Your task to perform on an android device: Search for panasonic triple a on bestbuy, select the first entry, and add it to the cart. Image 0: 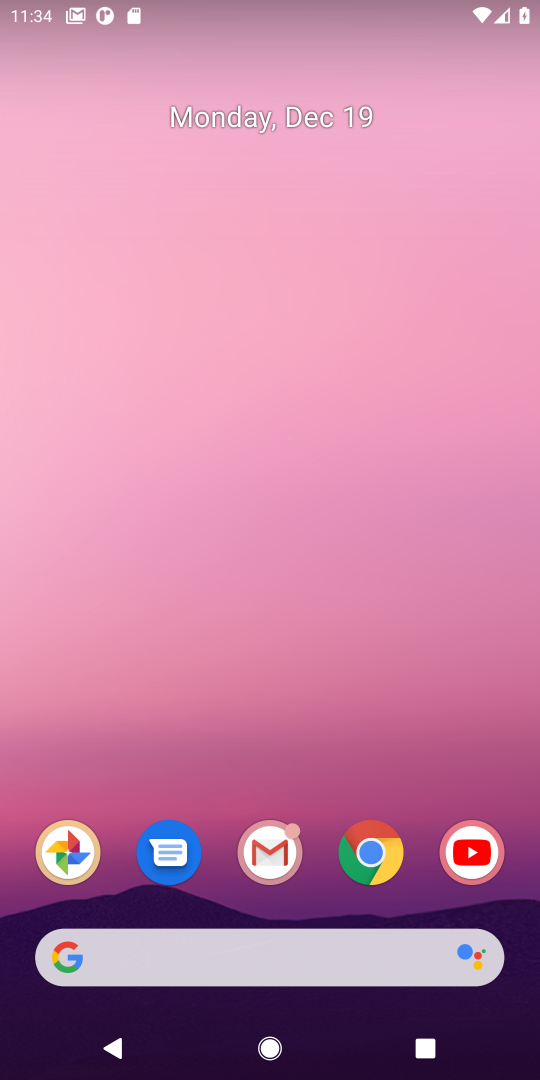
Step 0: click (372, 859)
Your task to perform on an android device: Search for panasonic triple a on bestbuy, select the first entry, and add it to the cart. Image 1: 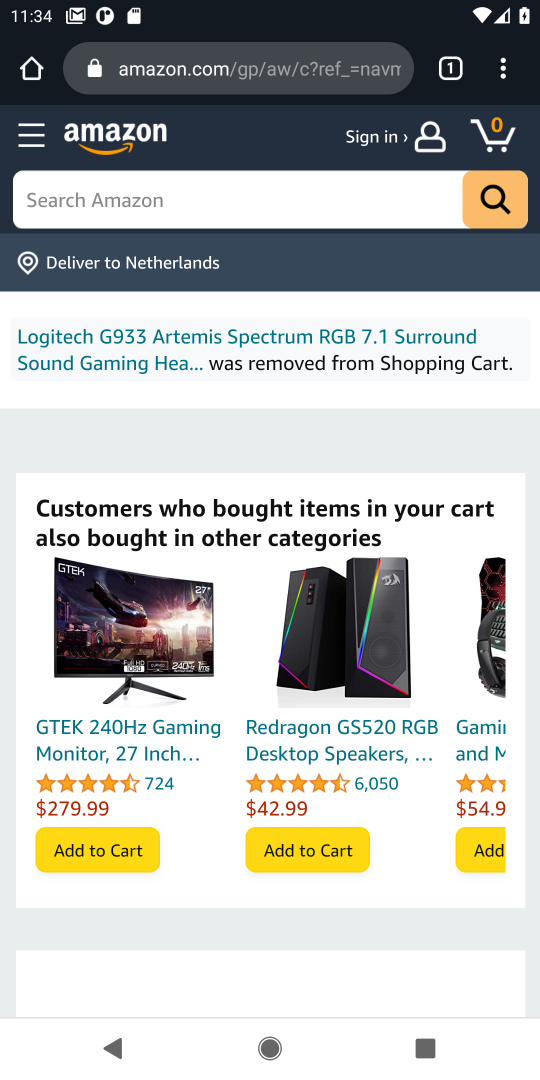
Step 1: click (232, 76)
Your task to perform on an android device: Search for panasonic triple a on bestbuy, select the first entry, and add it to the cart. Image 2: 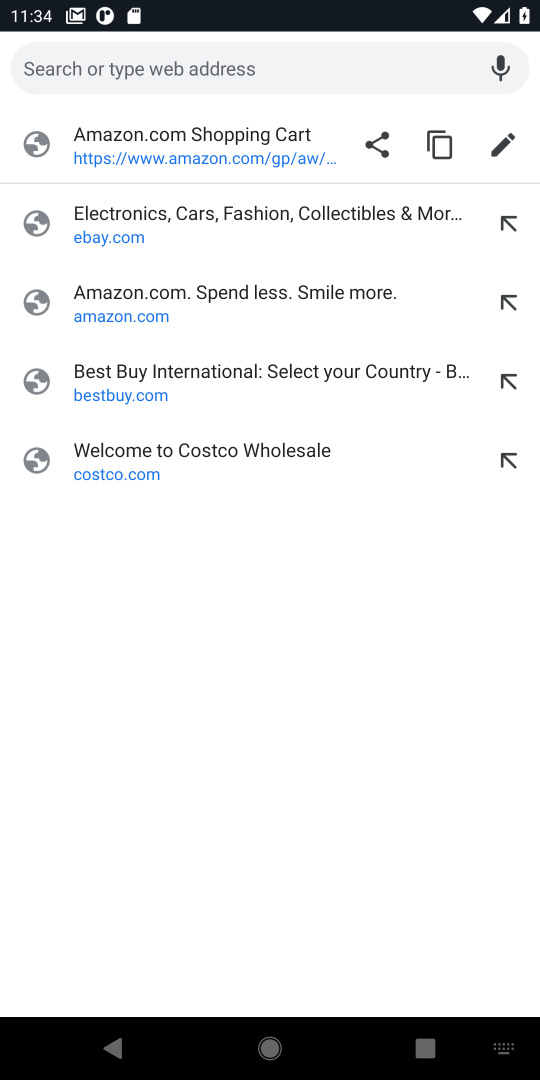
Step 2: click (134, 385)
Your task to perform on an android device: Search for panasonic triple a on bestbuy, select the first entry, and add it to the cart. Image 3: 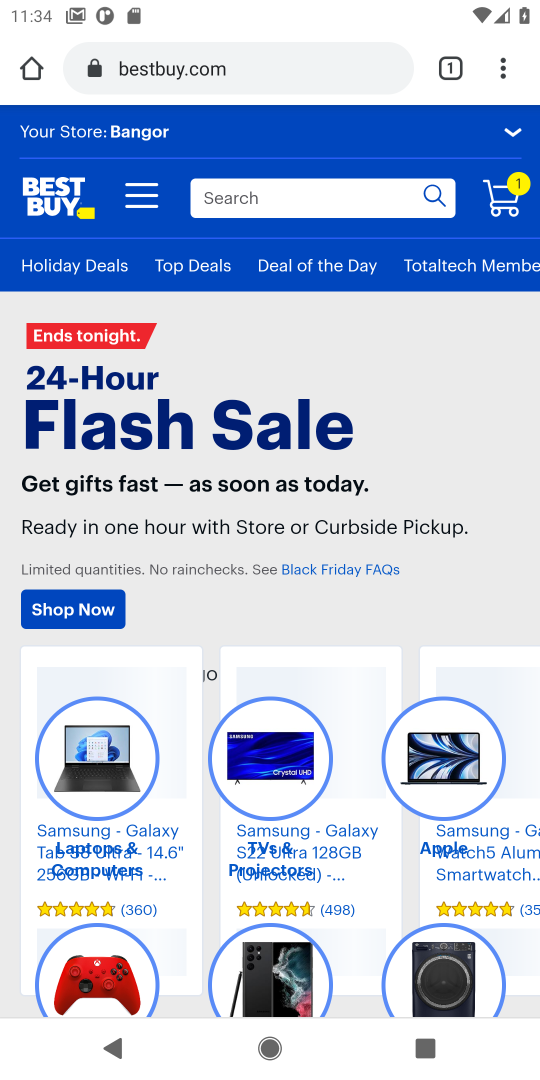
Step 3: click (267, 197)
Your task to perform on an android device: Search for panasonic triple a on bestbuy, select the first entry, and add it to the cart. Image 4: 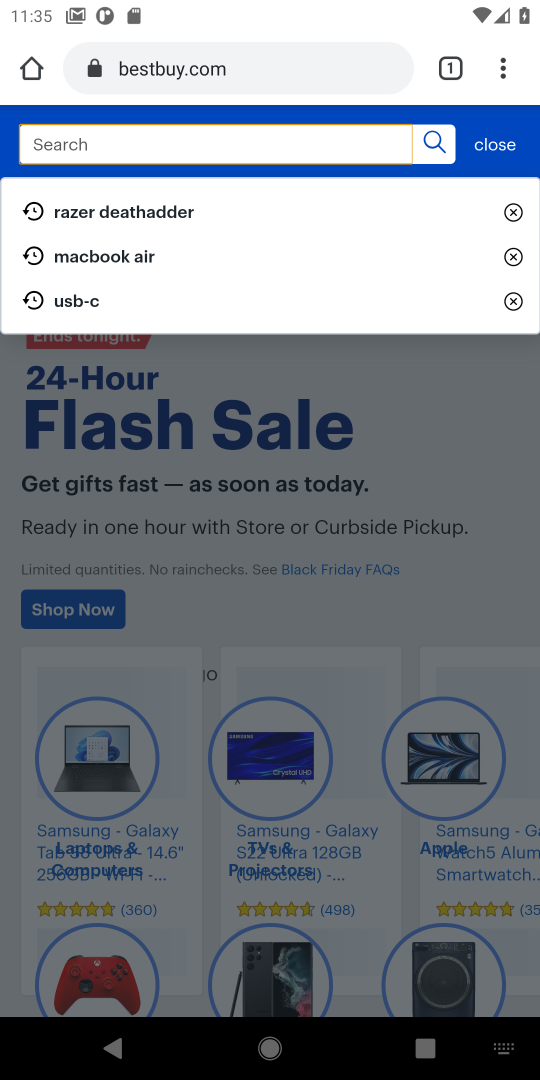
Step 4: type "panasonic triple a "
Your task to perform on an android device: Search for panasonic triple a on bestbuy, select the first entry, and add it to the cart. Image 5: 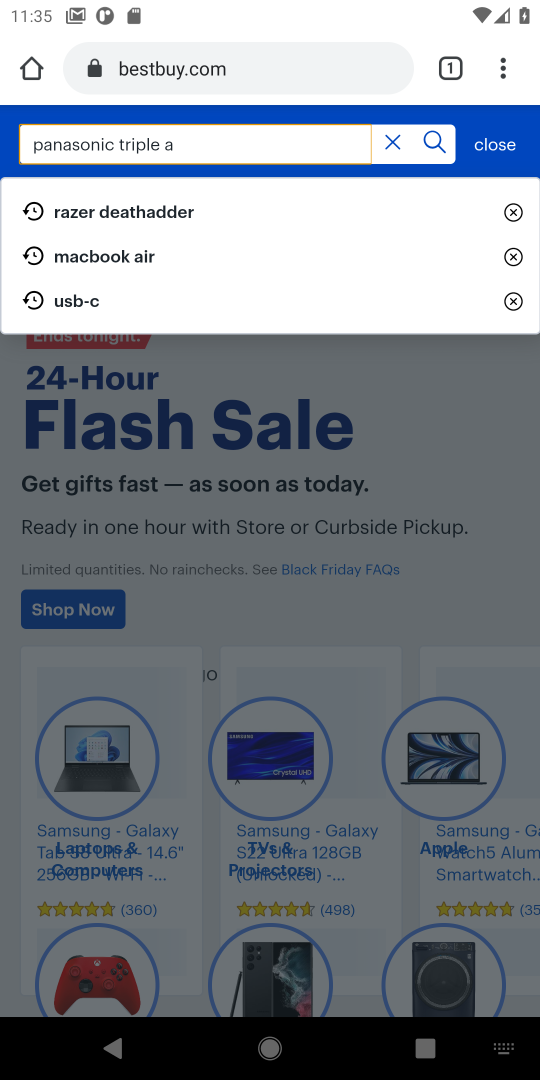
Step 5: click (427, 145)
Your task to perform on an android device: Search for panasonic triple a on bestbuy, select the first entry, and add it to the cart. Image 6: 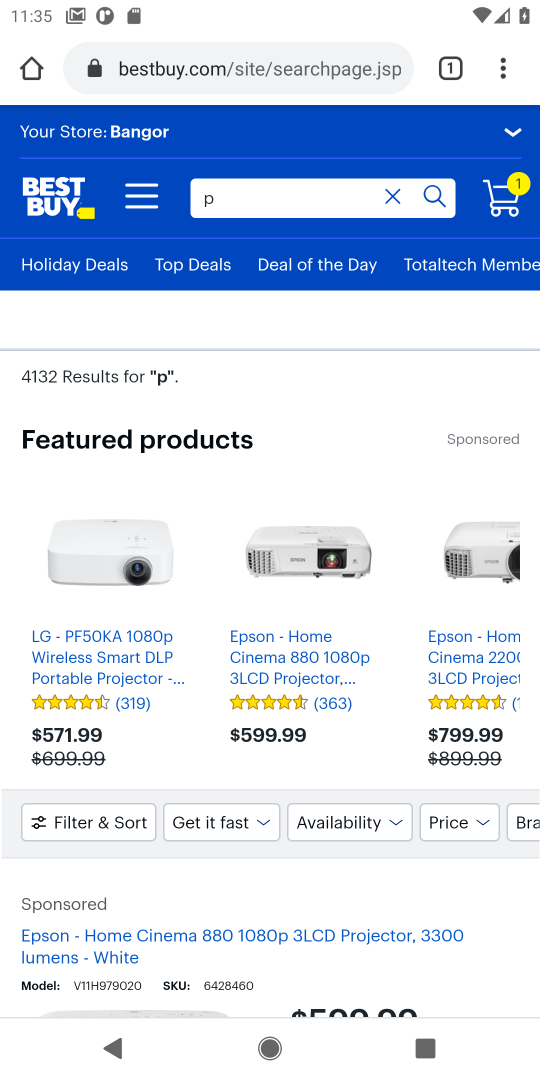
Step 6: click (269, 194)
Your task to perform on an android device: Search for panasonic triple a on bestbuy, select the first entry, and add it to the cart. Image 7: 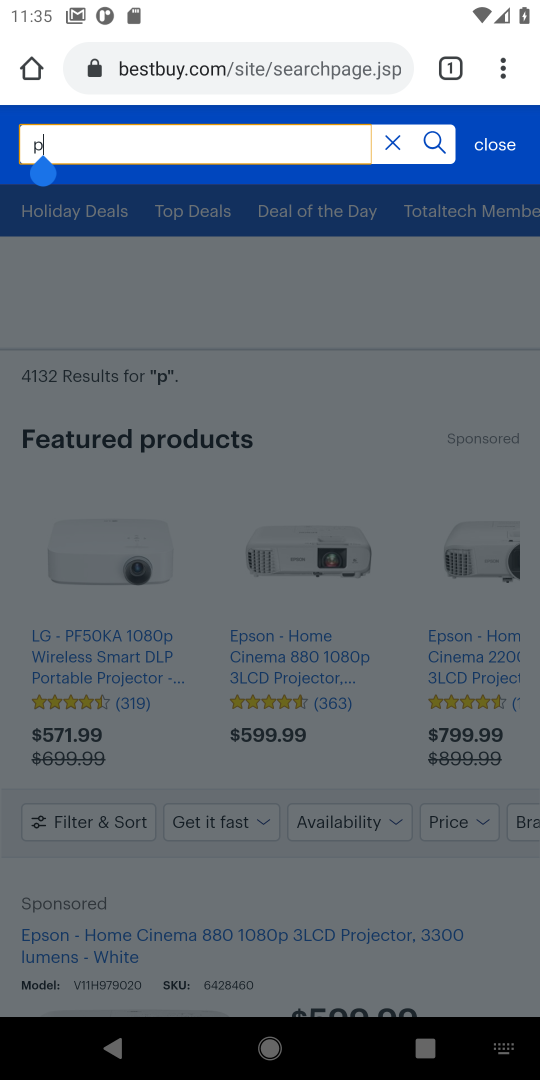
Step 7: click (385, 139)
Your task to perform on an android device: Search for panasonic triple a on bestbuy, select the first entry, and add it to the cart. Image 8: 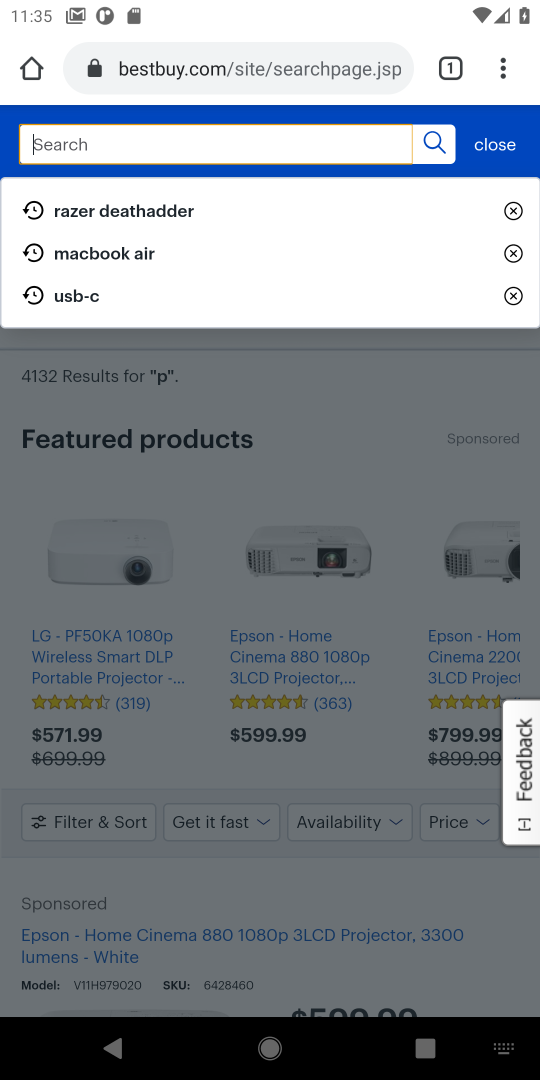
Step 8: type "panasonic triple a "
Your task to perform on an android device: Search for panasonic triple a on bestbuy, select the first entry, and add it to the cart. Image 9: 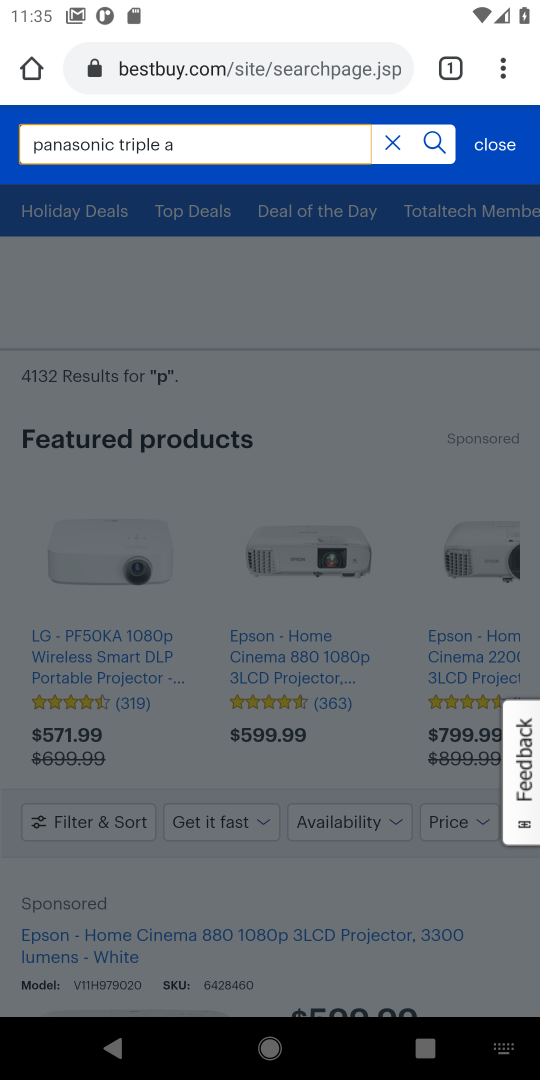
Step 9: click (437, 149)
Your task to perform on an android device: Search for panasonic triple a on bestbuy, select the first entry, and add it to the cart. Image 10: 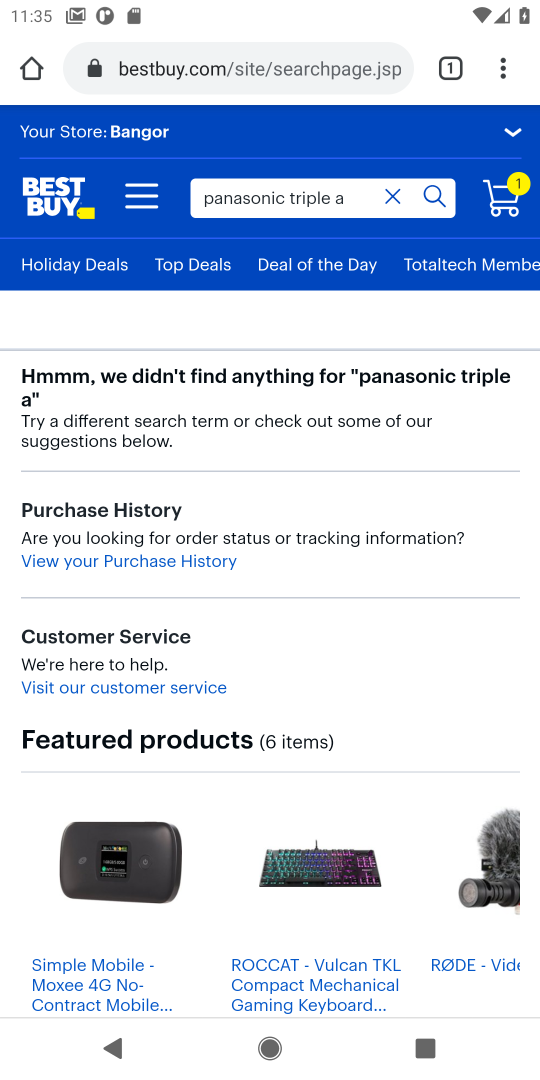
Step 10: task complete